Your task to perform on an android device: Add "logitech g pro" to the cart on amazon Image 0: 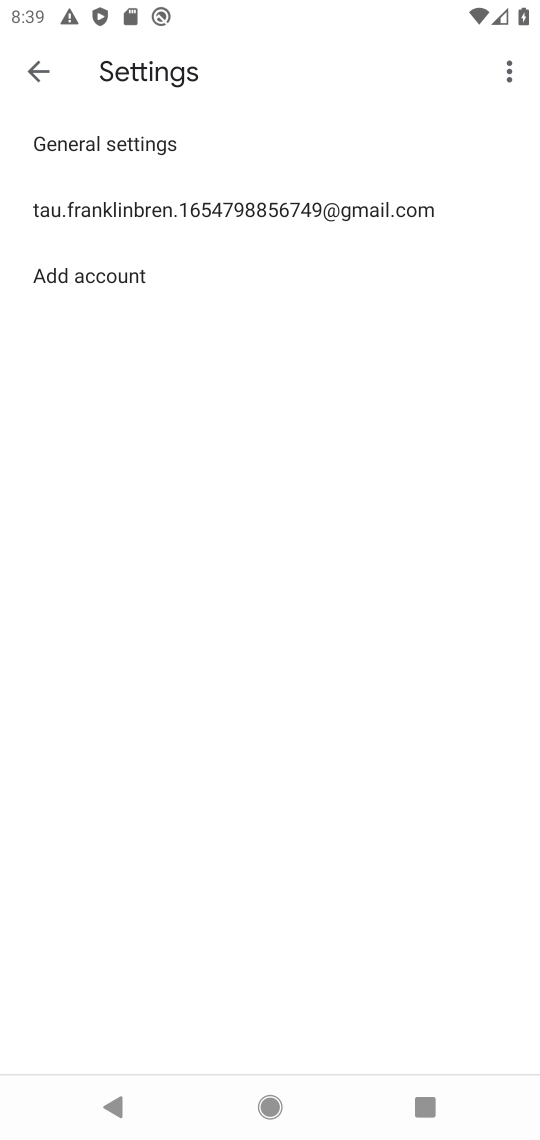
Step 0: press home button
Your task to perform on an android device: Add "logitech g pro" to the cart on amazon Image 1: 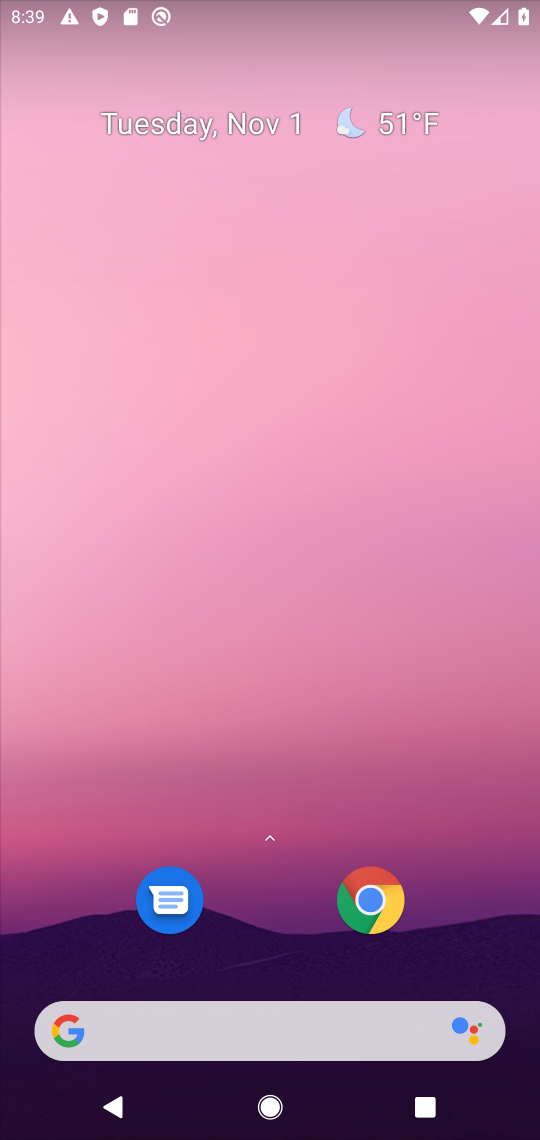
Step 1: drag from (330, 1087) to (470, 111)
Your task to perform on an android device: Add "logitech g pro" to the cart on amazon Image 2: 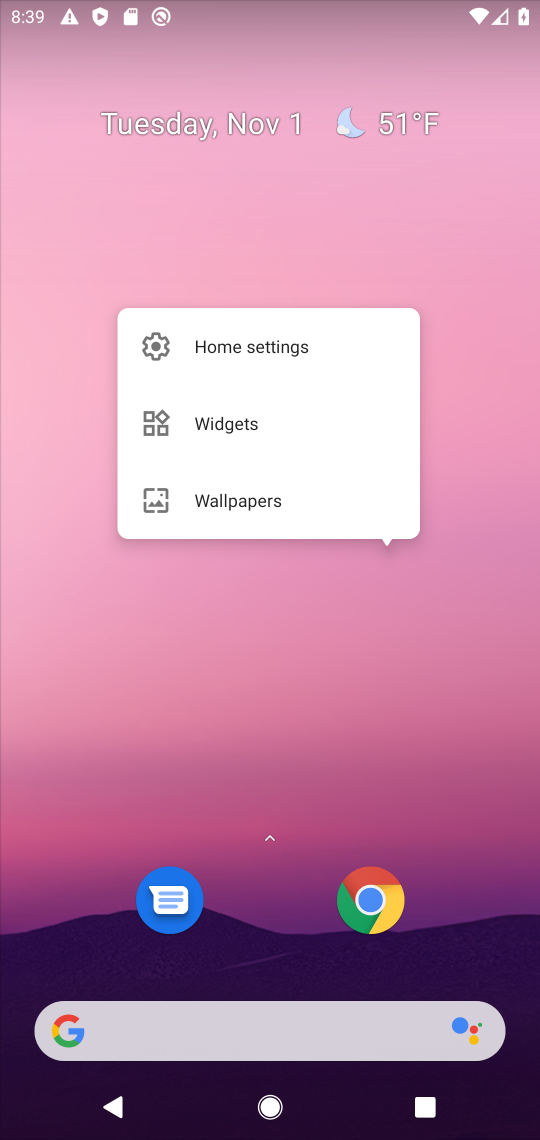
Step 2: click (473, 576)
Your task to perform on an android device: Add "logitech g pro" to the cart on amazon Image 3: 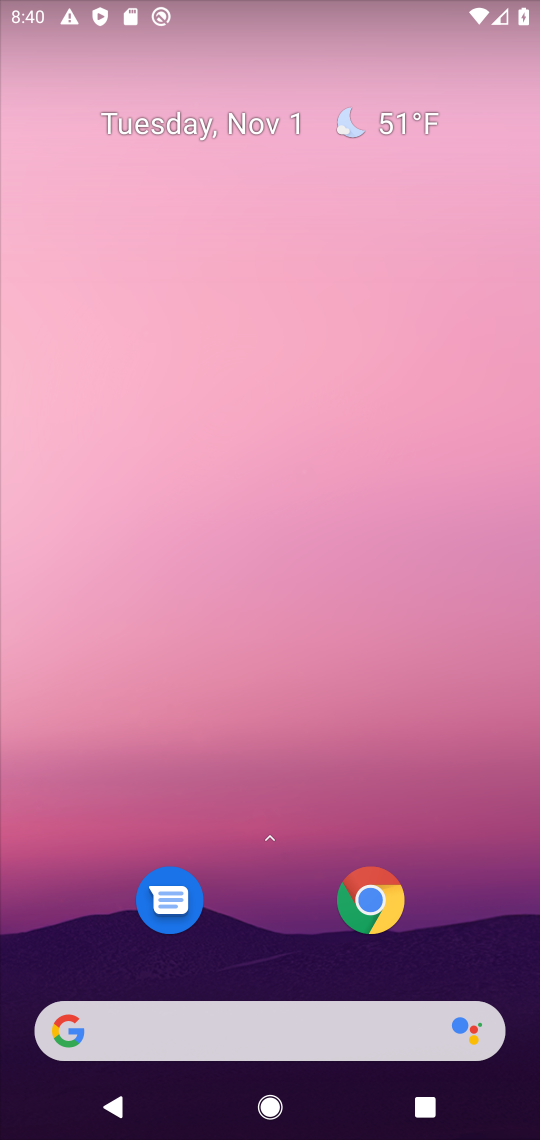
Step 3: drag from (333, 1085) to (178, 96)
Your task to perform on an android device: Add "logitech g pro" to the cart on amazon Image 4: 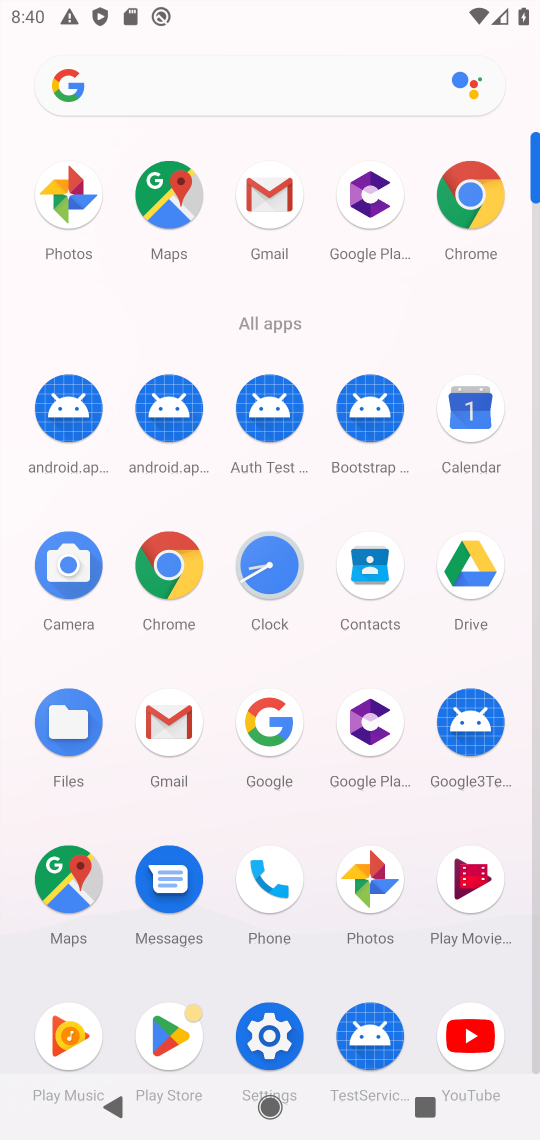
Step 4: click (171, 570)
Your task to perform on an android device: Add "logitech g pro" to the cart on amazon Image 5: 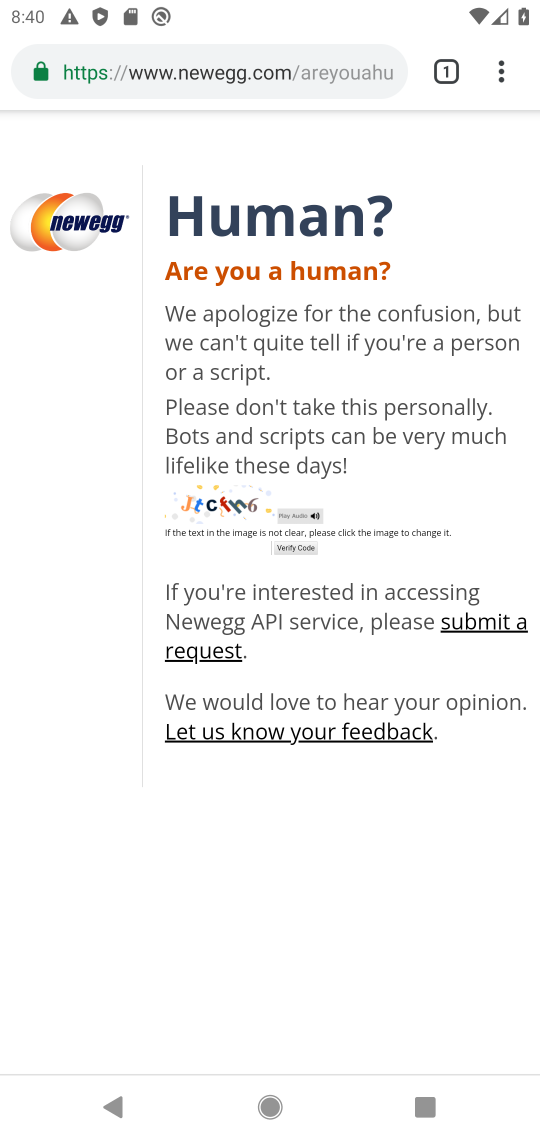
Step 5: task complete